Your task to perform on an android device: change alarm snooze length Image 0: 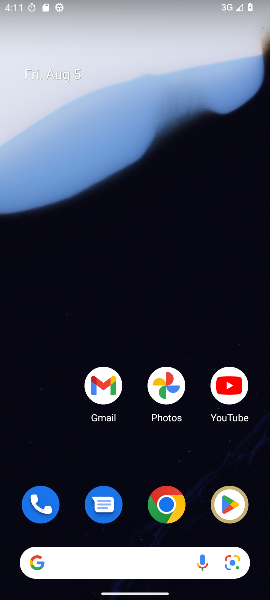
Step 0: drag from (24, 581) to (187, 157)
Your task to perform on an android device: change alarm snooze length Image 1: 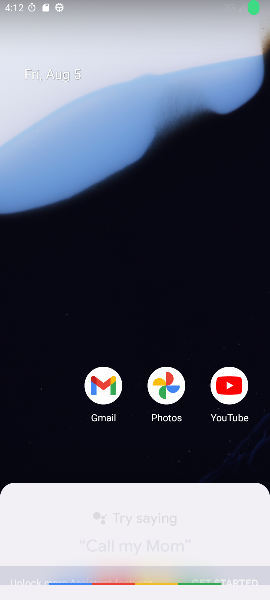
Step 1: click (25, 579)
Your task to perform on an android device: change alarm snooze length Image 2: 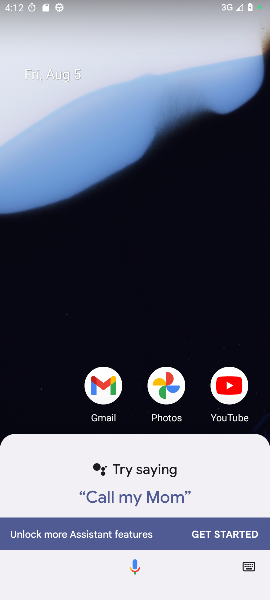
Step 2: press home button
Your task to perform on an android device: change alarm snooze length Image 3: 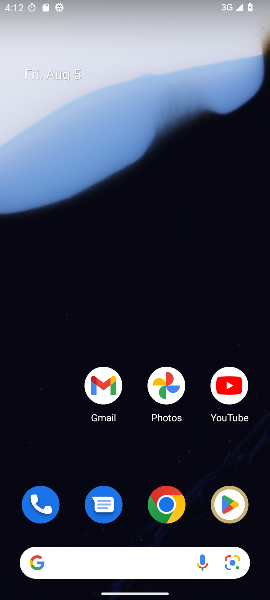
Step 3: click (99, 382)
Your task to perform on an android device: change alarm snooze length Image 4: 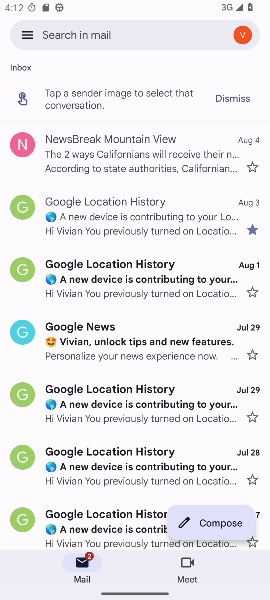
Step 4: click (30, 37)
Your task to perform on an android device: change alarm snooze length Image 5: 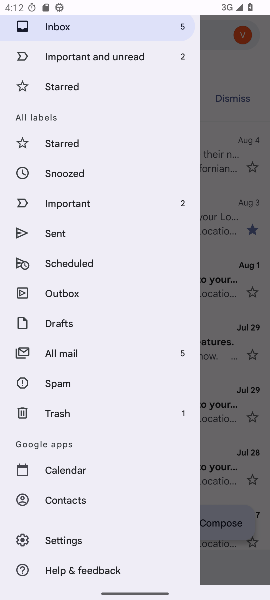
Step 5: click (52, 174)
Your task to perform on an android device: change alarm snooze length Image 6: 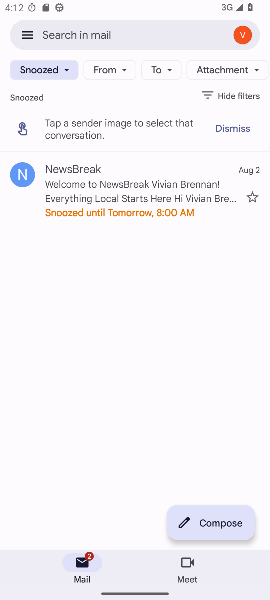
Step 6: task complete